Your task to perform on an android device: turn on bluetooth scan Image 0: 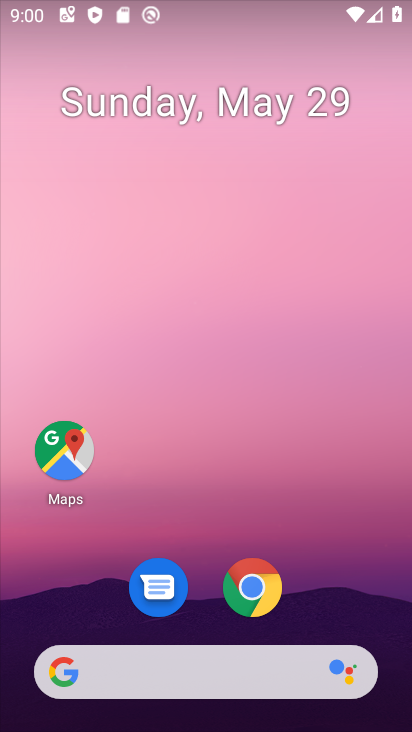
Step 0: drag from (239, 410) to (275, 103)
Your task to perform on an android device: turn on bluetooth scan Image 1: 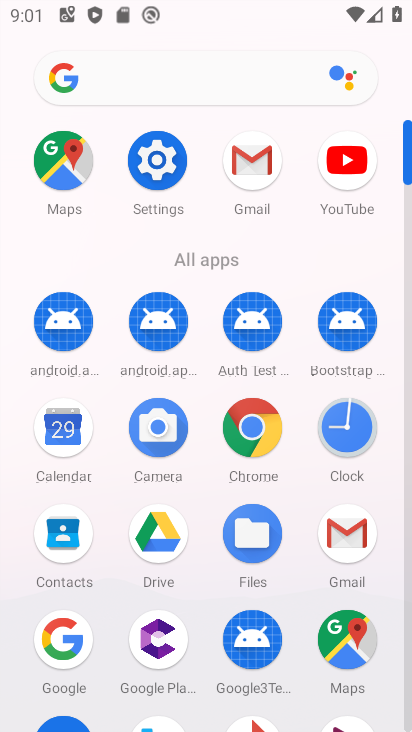
Step 1: click (162, 169)
Your task to perform on an android device: turn on bluetooth scan Image 2: 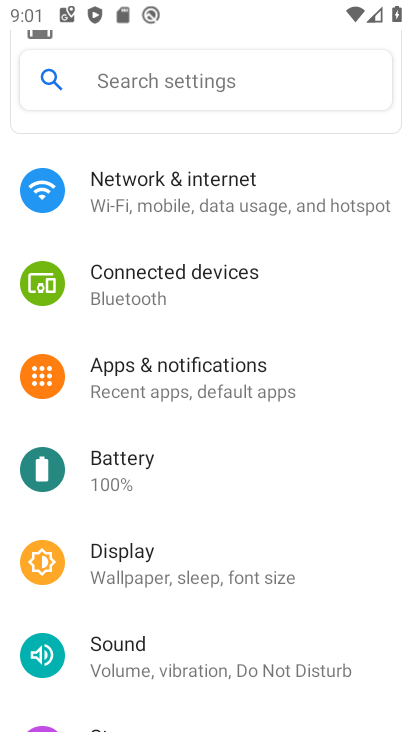
Step 2: drag from (180, 221) to (149, 636)
Your task to perform on an android device: turn on bluetooth scan Image 3: 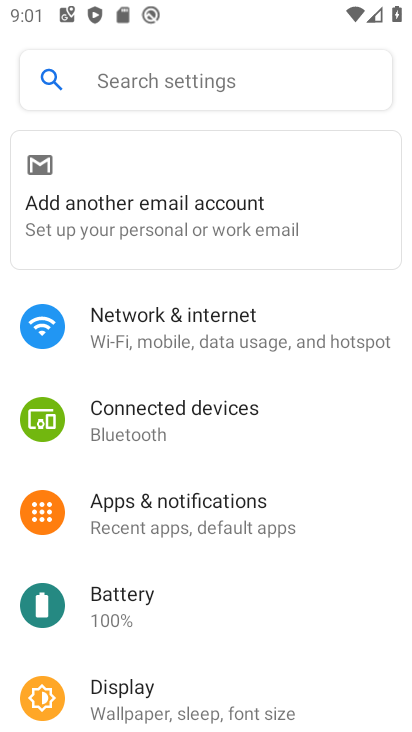
Step 3: click (174, 77)
Your task to perform on an android device: turn on bluetooth scan Image 4: 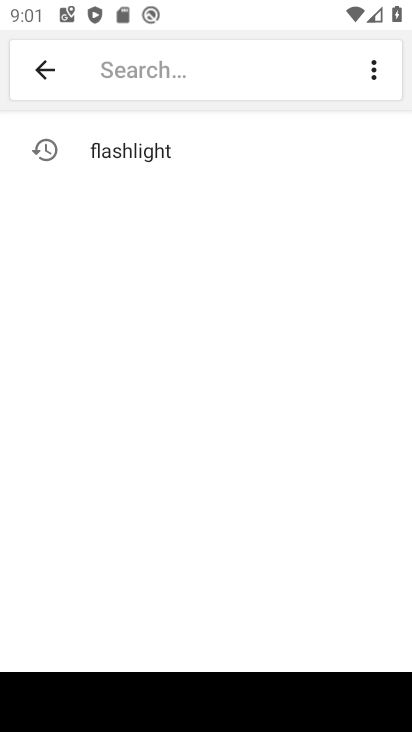
Step 4: click (51, 61)
Your task to perform on an android device: turn on bluetooth scan Image 5: 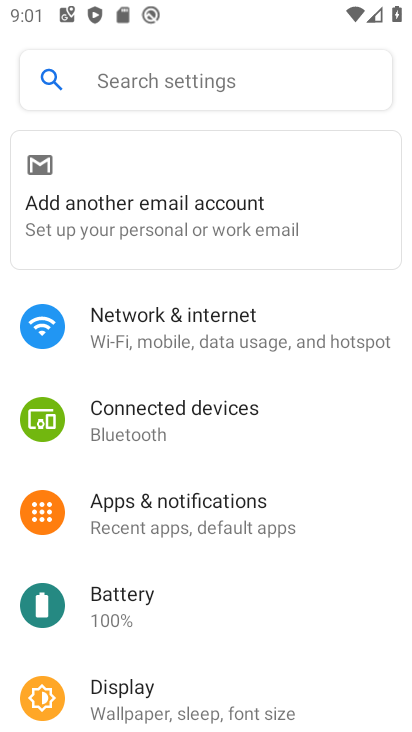
Step 5: click (145, 426)
Your task to perform on an android device: turn on bluetooth scan Image 6: 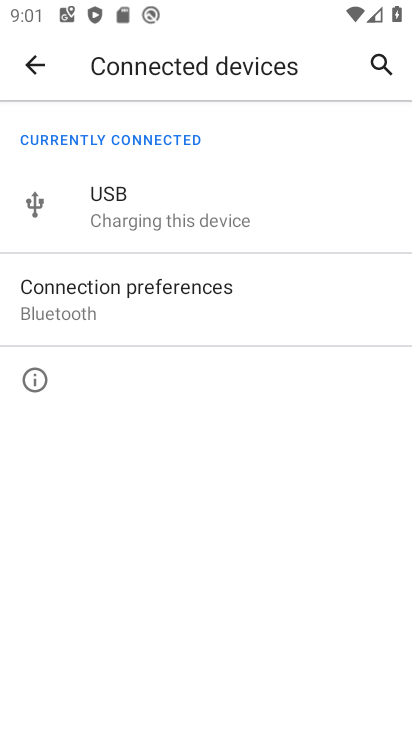
Step 6: click (64, 289)
Your task to perform on an android device: turn on bluetooth scan Image 7: 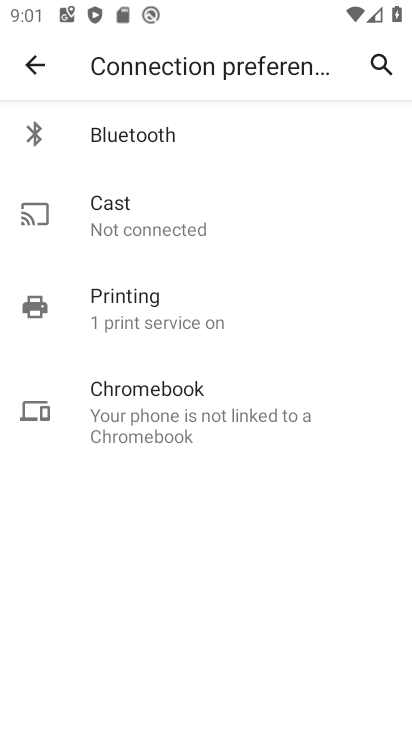
Step 7: click (149, 146)
Your task to perform on an android device: turn on bluetooth scan Image 8: 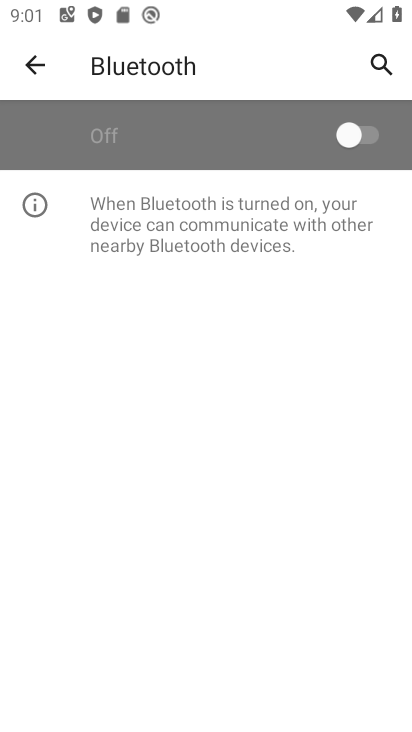
Step 8: click (345, 132)
Your task to perform on an android device: turn on bluetooth scan Image 9: 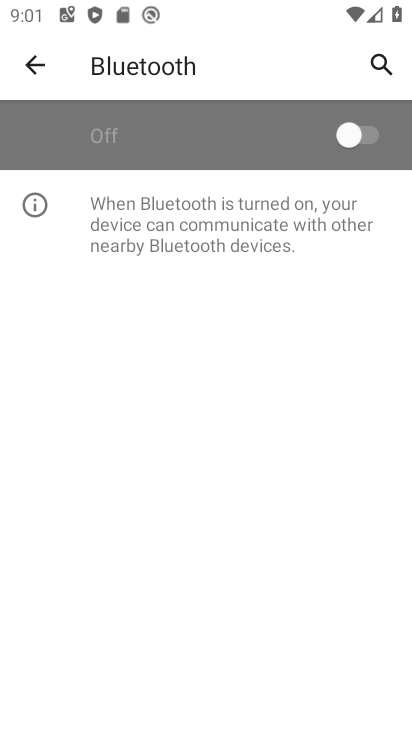
Step 9: task complete